Your task to perform on an android device: clear history in the chrome app Image 0: 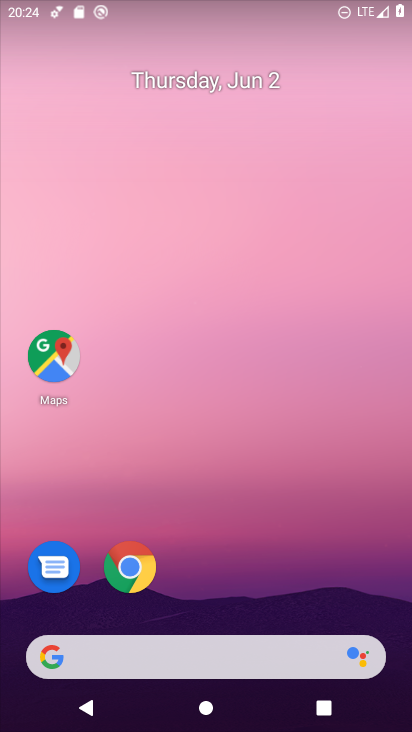
Step 0: click (138, 572)
Your task to perform on an android device: clear history in the chrome app Image 1: 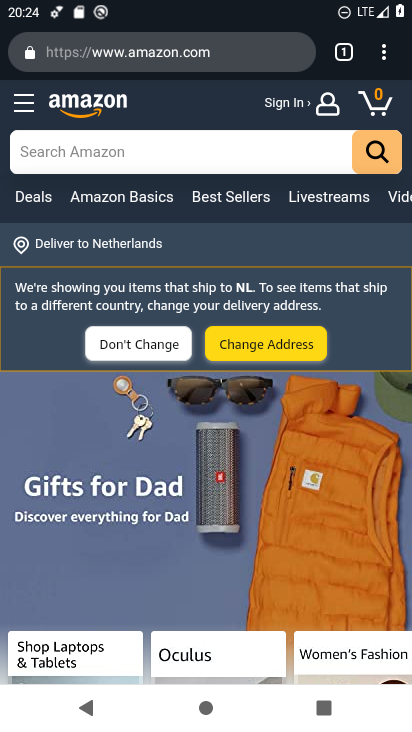
Step 1: drag from (380, 63) to (284, 312)
Your task to perform on an android device: clear history in the chrome app Image 2: 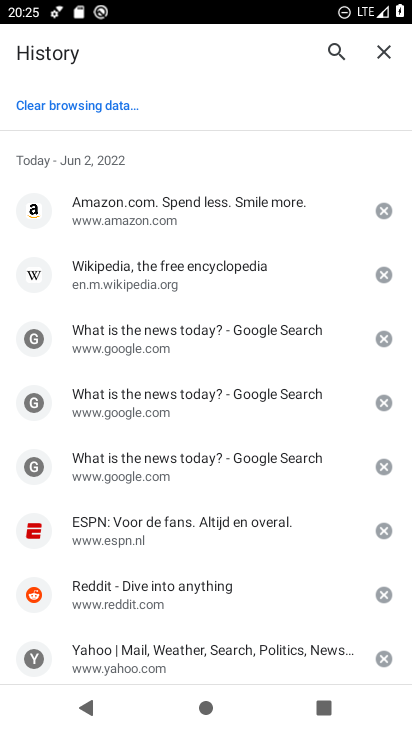
Step 2: click (116, 113)
Your task to perform on an android device: clear history in the chrome app Image 3: 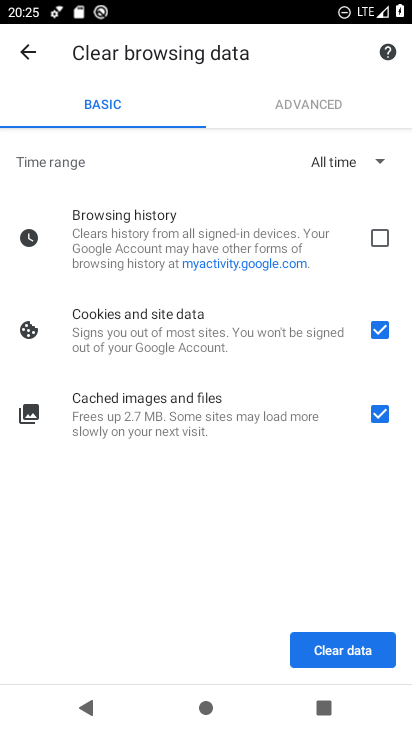
Step 3: click (385, 246)
Your task to perform on an android device: clear history in the chrome app Image 4: 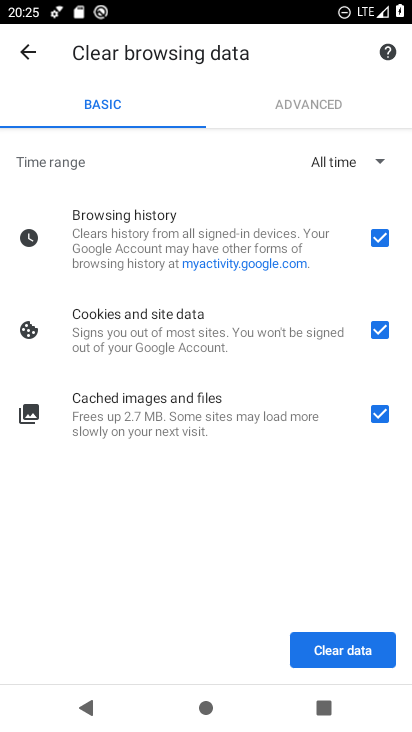
Step 4: click (333, 657)
Your task to perform on an android device: clear history in the chrome app Image 5: 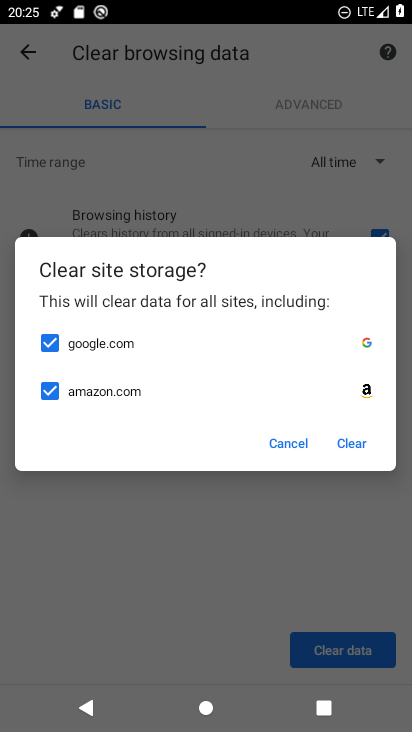
Step 5: click (359, 440)
Your task to perform on an android device: clear history in the chrome app Image 6: 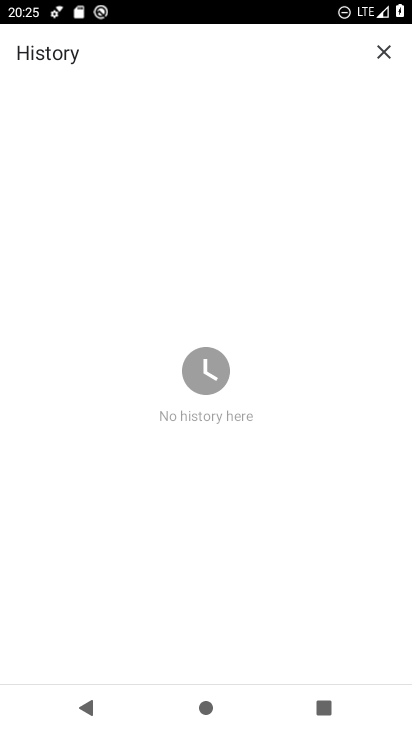
Step 6: task complete